Your task to perform on an android device: delete a single message in the gmail app Image 0: 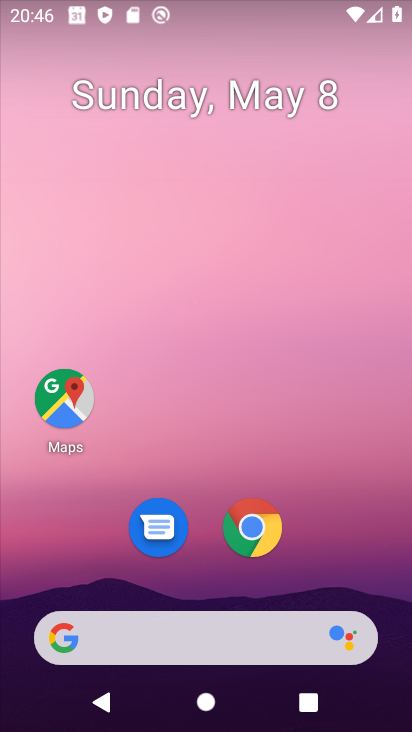
Step 0: drag from (210, 572) to (188, 50)
Your task to perform on an android device: delete a single message in the gmail app Image 1: 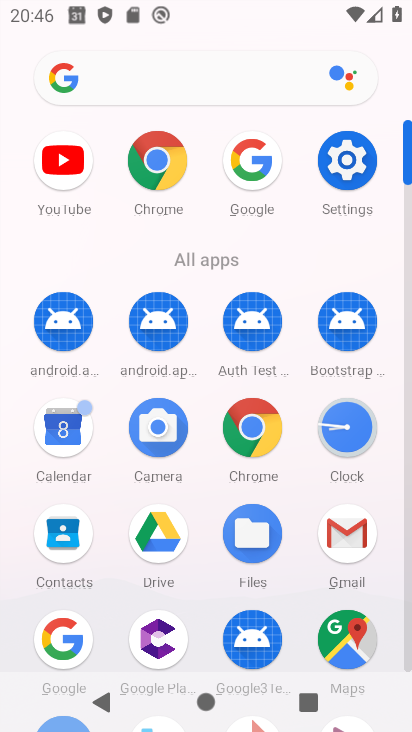
Step 1: click (342, 542)
Your task to perform on an android device: delete a single message in the gmail app Image 2: 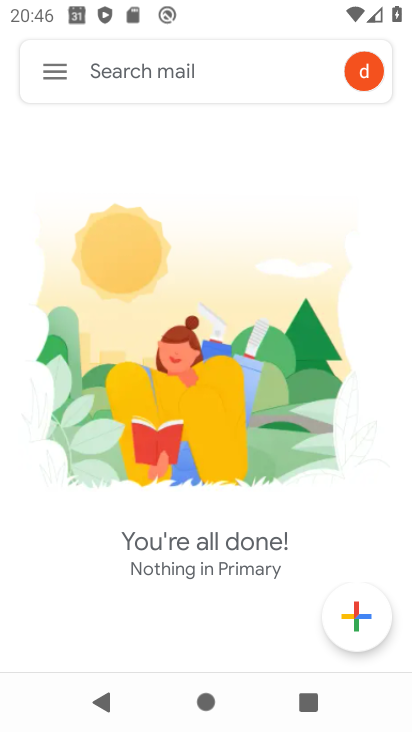
Step 2: click (51, 86)
Your task to perform on an android device: delete a single message in the gmail app Image 3: 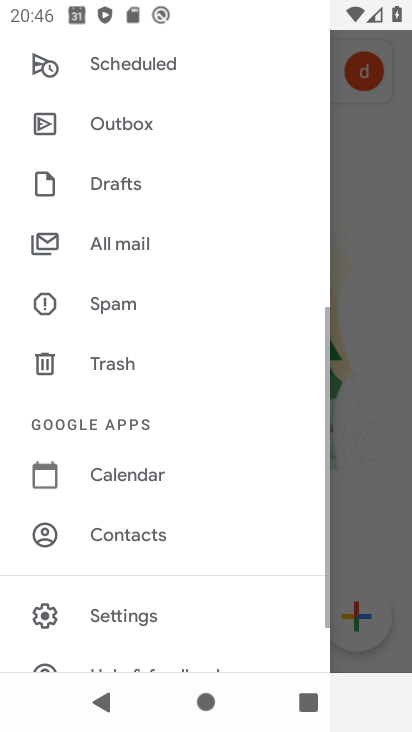
Step 3: click (102, 258)
Your task to perform on an android device: delete a single message in the gmail app Image 4: 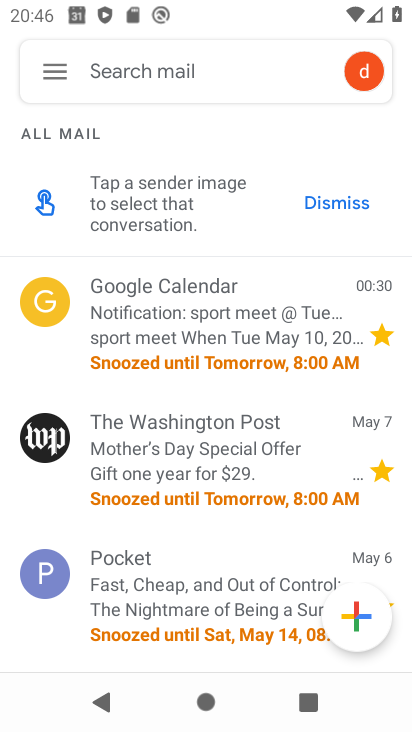
Step 4: click (235, 328)
Your task to perform on an android device: delete a single message in the gmail app Image 5: 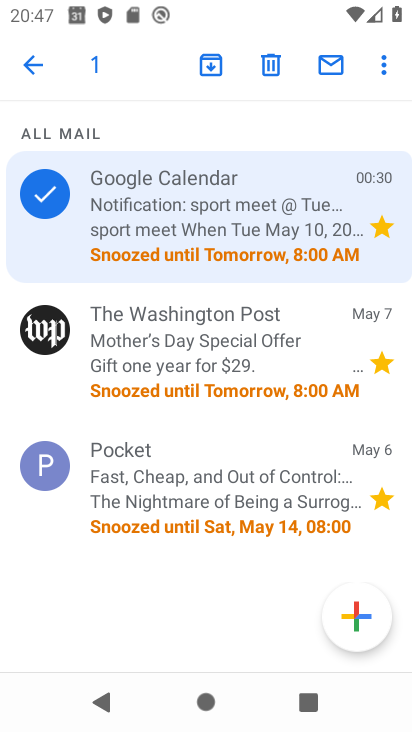
Step 5: click (269, 57)
Your task to perform on an android device: delete a single message in the gmail app Image 6: 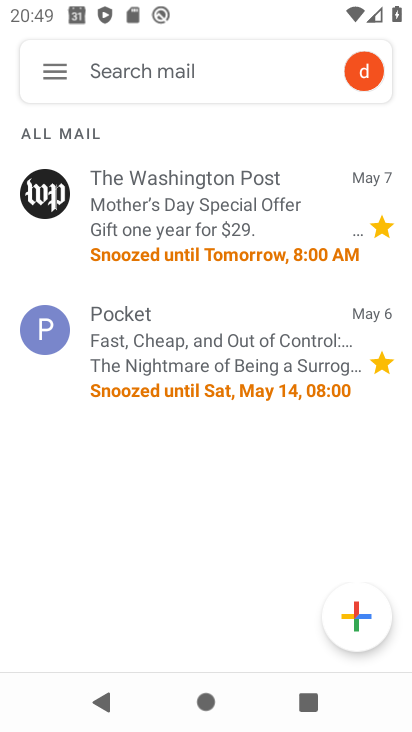
Step 6: task complete